Your task to perform on an android device: find snoozed emails in the gmail app Image 0: 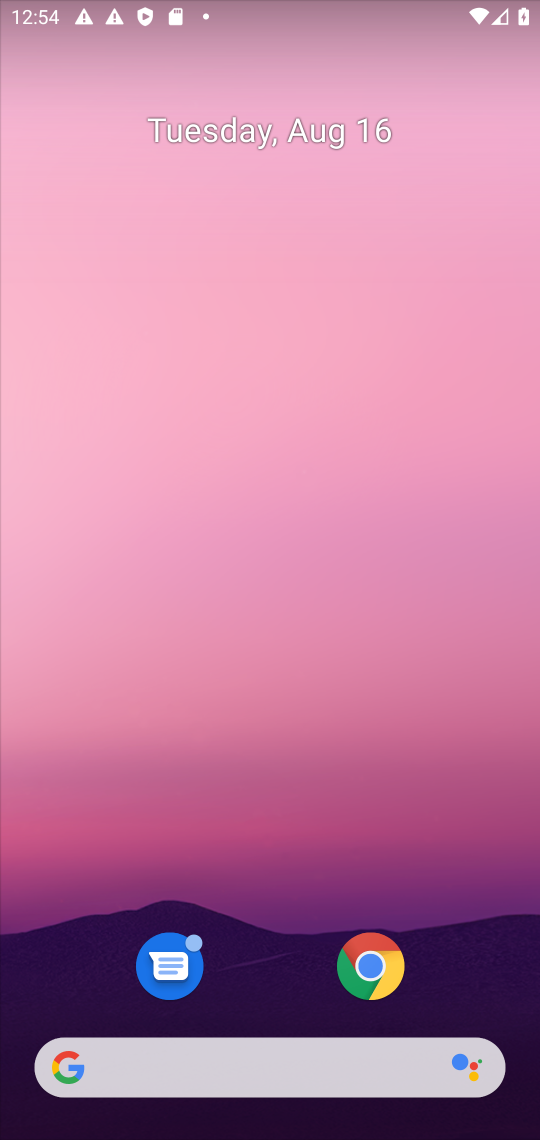
Step 0: drag from (290, 946) to (186, 108)
Your task to perform on an android device: find snoozed emails in the gmail app Image 1: 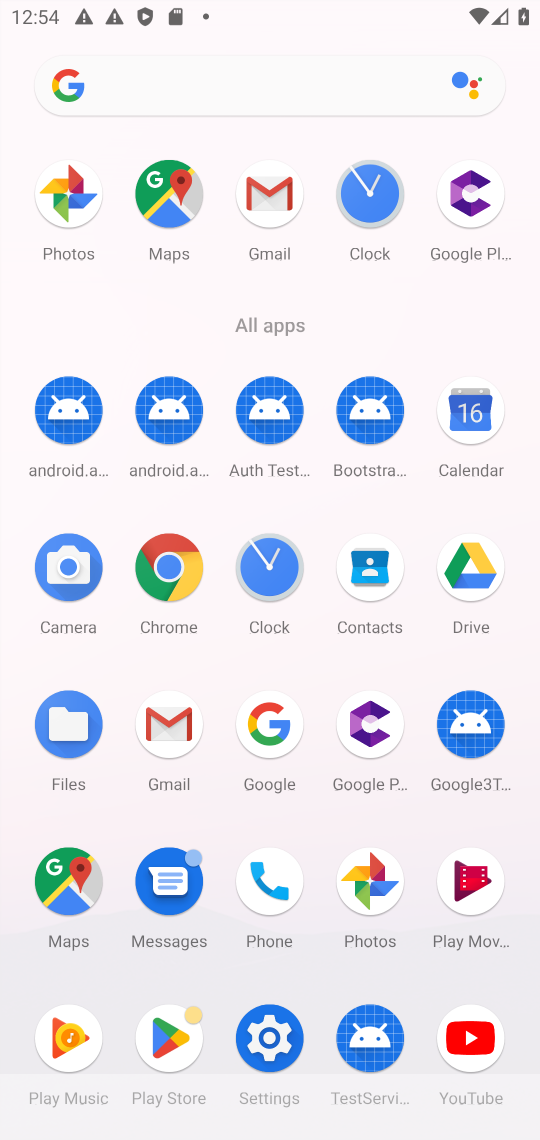
Step 1: click (270, 188)
Your task to perform on an android device: find snoozed emails in the gmail app Image 2: 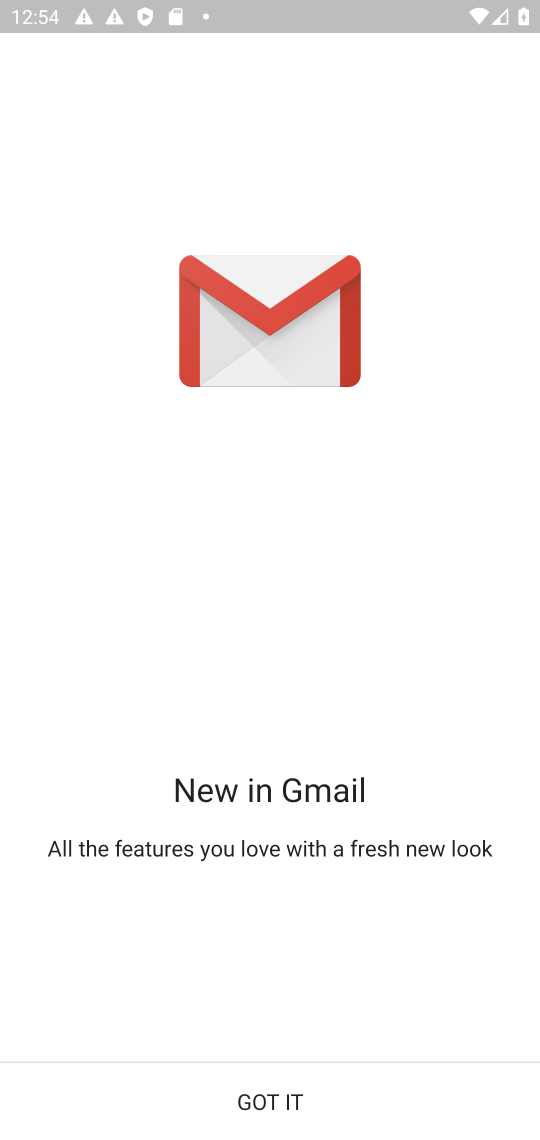
Step 2: click (261, 1080)
Your task to perform on an android device: find snoozed emails in the gmail app Image 3: 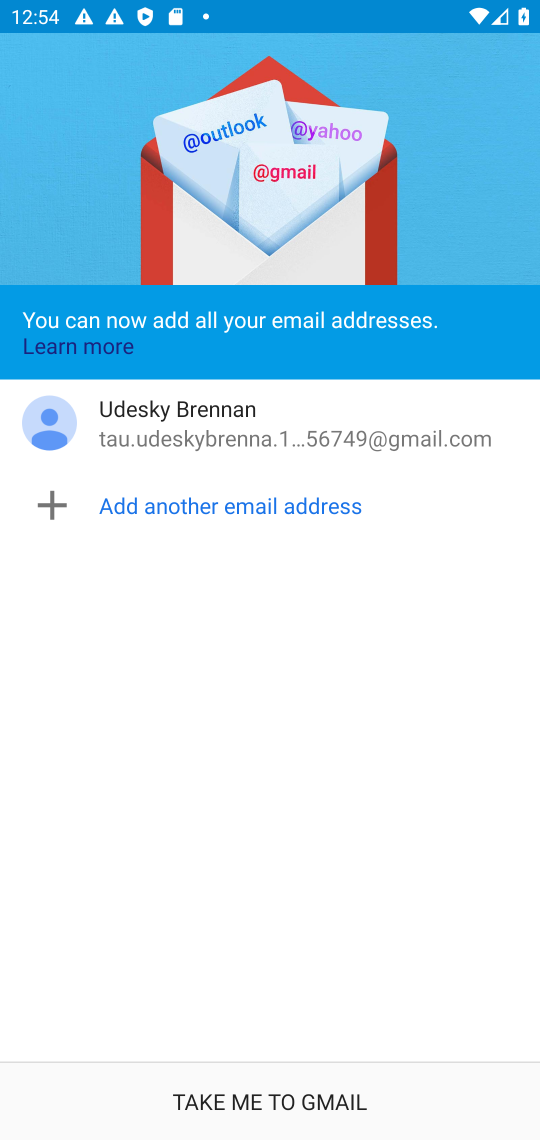
Step 3: click (276, 1082)
Your task to perform on an android device: find snoozed emails in the gmail app Image 4: 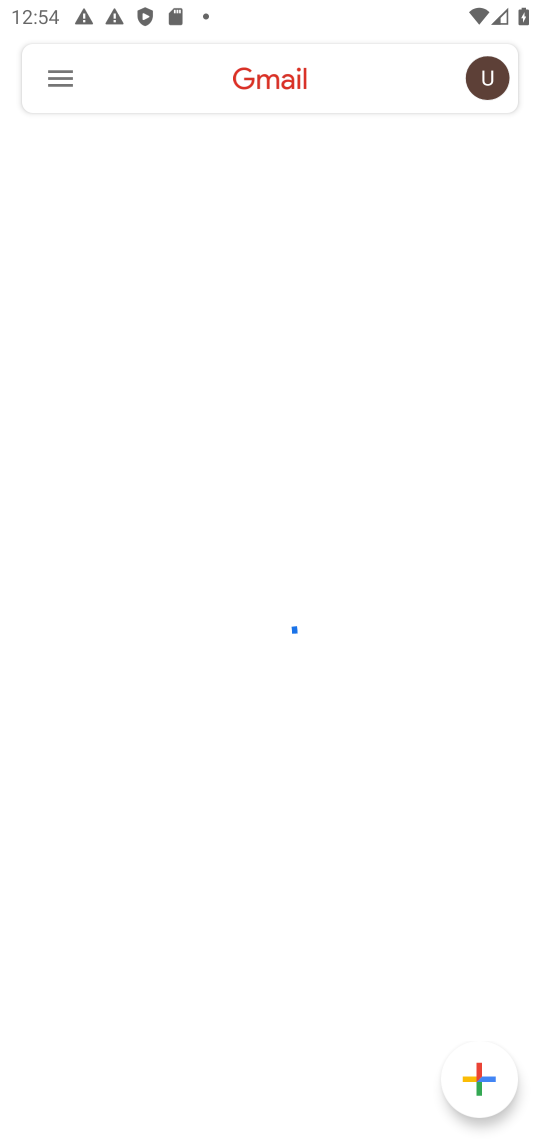
Step 4: click (59, 79)
Your task to perform on an android device: find snoozed emails in the gmail app Image 5: 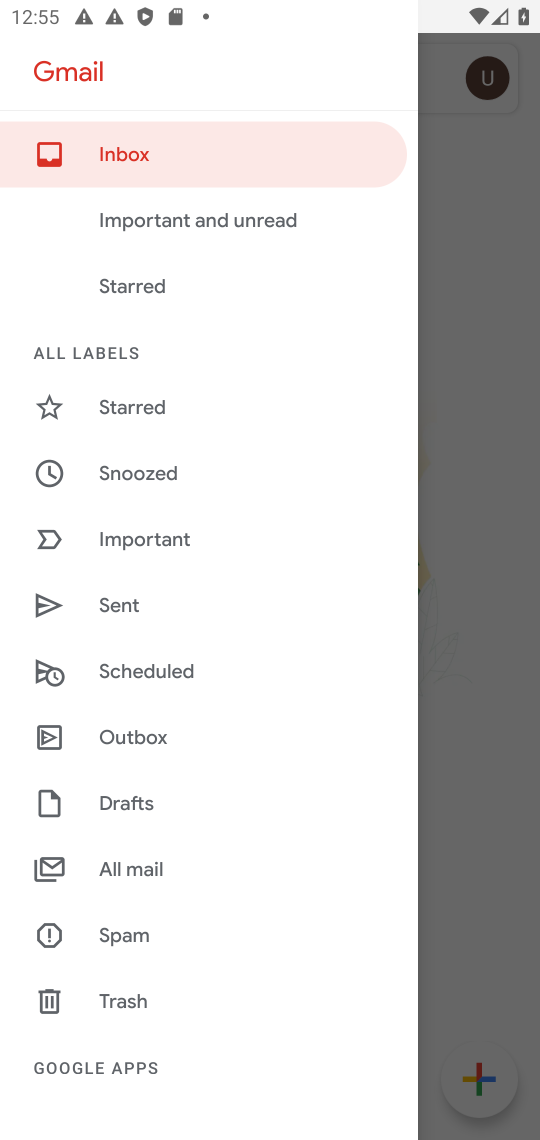
Step 5: click (132, 467)
Your task to perform on an android device: find snoozed emails in the gmail app Image 6: 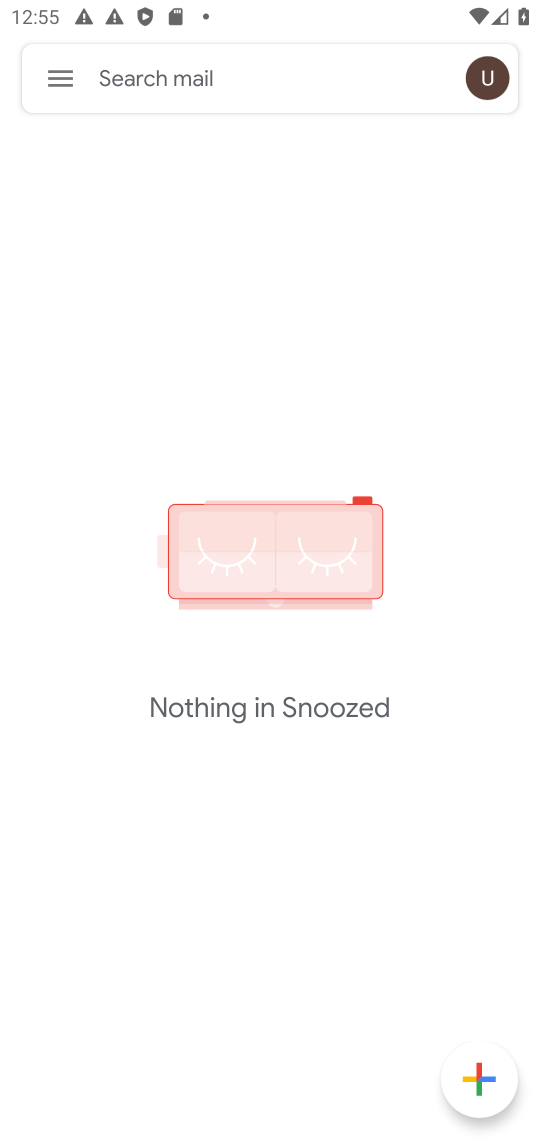
Step 6: task complete